Your task to perform on an android device: turn off translation in the chrome app Image 0: 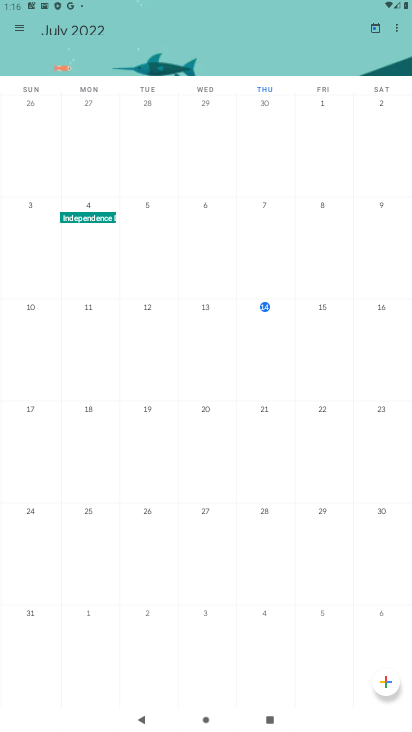
Step 0: press home button
Your task to perform on an android device: turn off translation in the chrome app Image 1: 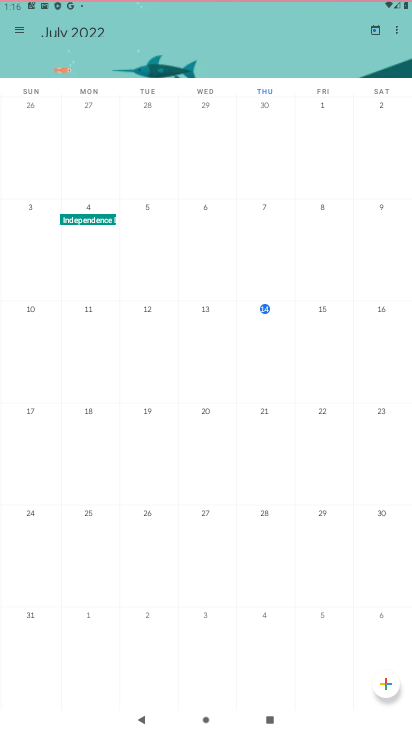
Step 1: drag from (391, 686) to (263, 15)
Your task to perform on an android device: turn off translation in the chrome app Image 2: 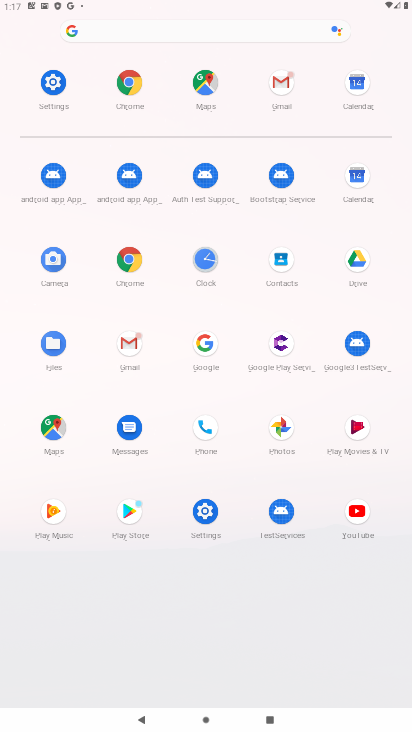
Step 2: click (131, 82)
Your task to perform on an android device: turn off translation in the chrome app Image 3: 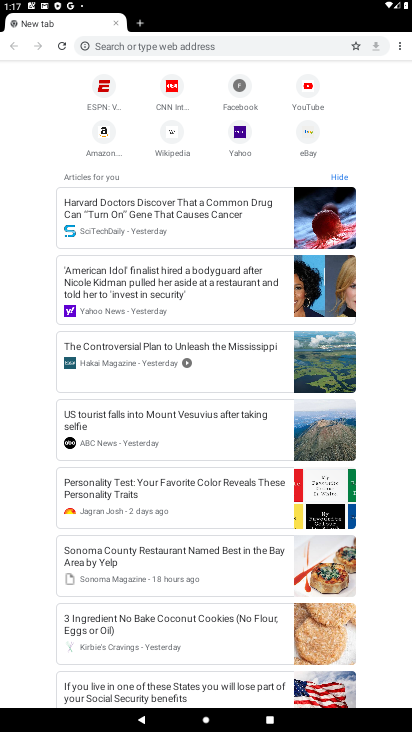
Step 3: click (397, 43)
Your task to perform on an android device: turn off translation in the chrome app Image 4: 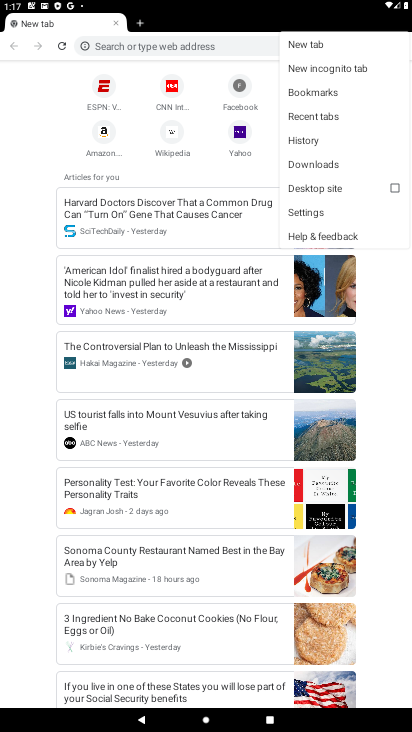
Step 4: click (316, 213)
Your task to perform on an android device: turn off translation in the chrome app Image 5: 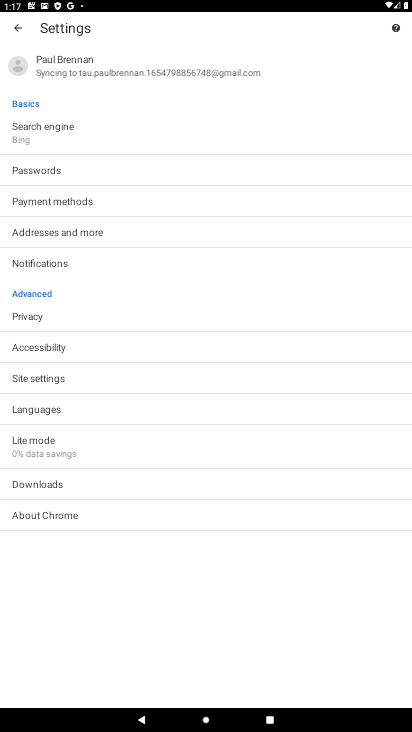
Step 5: click (79, 400)
Your task to perform on an android device: turn off translation in the chrome app Image 6: 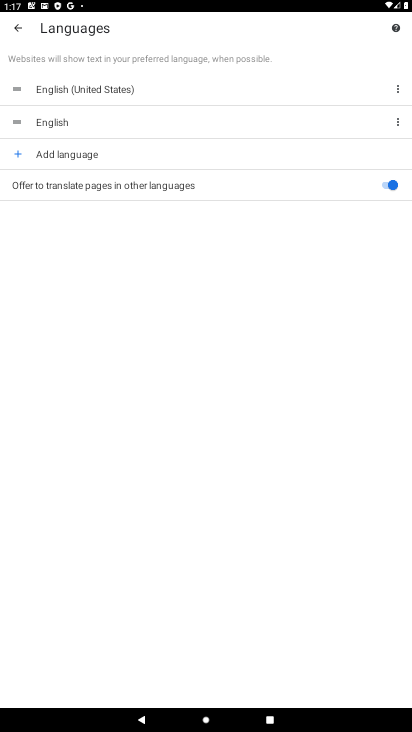
Step 6: click (363, 179)
Your task to perform on an android device: turn off translation in the chrome app Image 7: 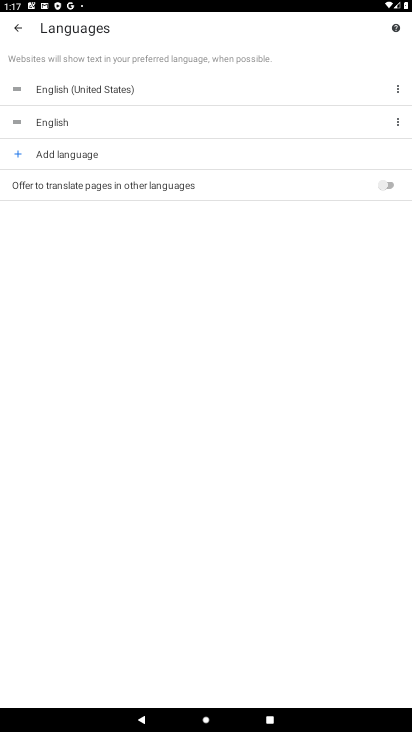
Step 7: task complete